Your task to perform on an android device: check google app version Image 0: 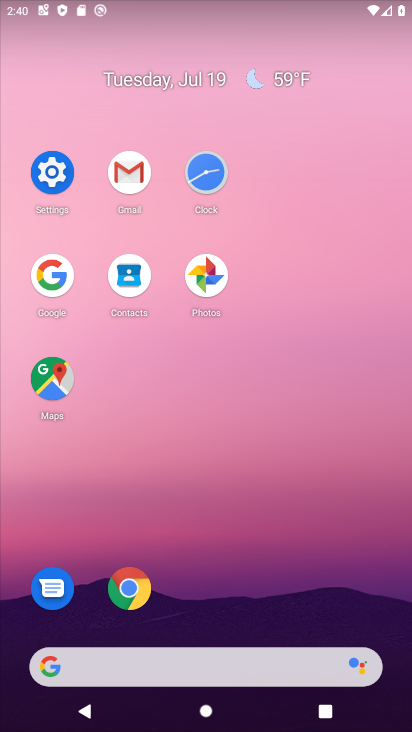
Step 0: click (132, 579)
Your task to perform on an android device: check google app version Image 1: 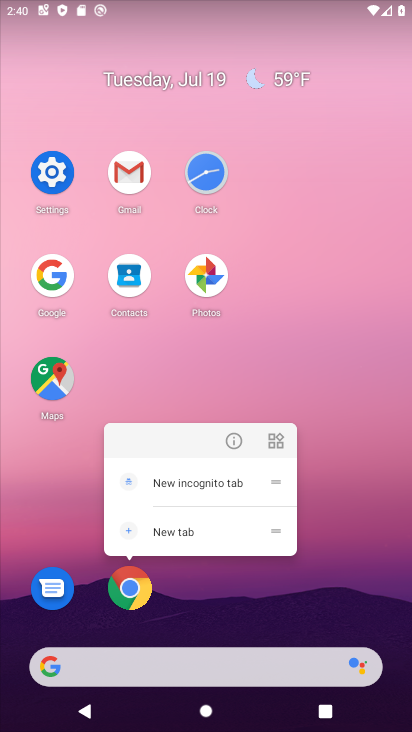
Step 1: click (246, 439)
Your task to perform on an android device: check google app version Image 2: 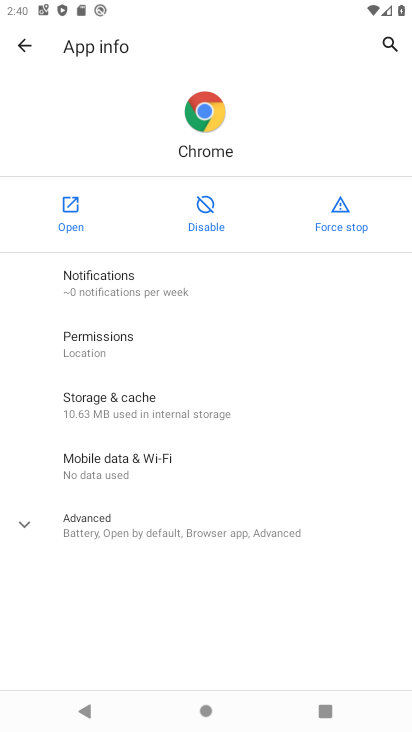
Step 2: click (164, 508)
Your task to perform on an android device: check google app version Image 3: 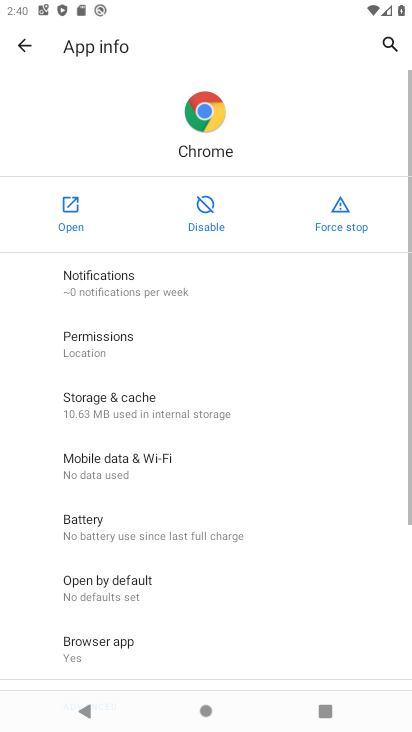
Step 3: task complete